Your task to perform on an android device: Clear the shopping cart on ebay. Add sony triple a to the cart on ebay Image 0: 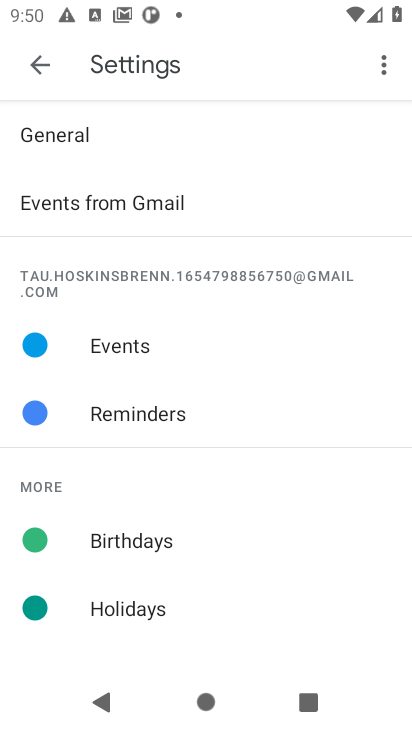
Step 0: press home button
Your task to perform on an android device: Clear the shopping cart on ebay. Add sony triple a to the cart on ebay Image 1: 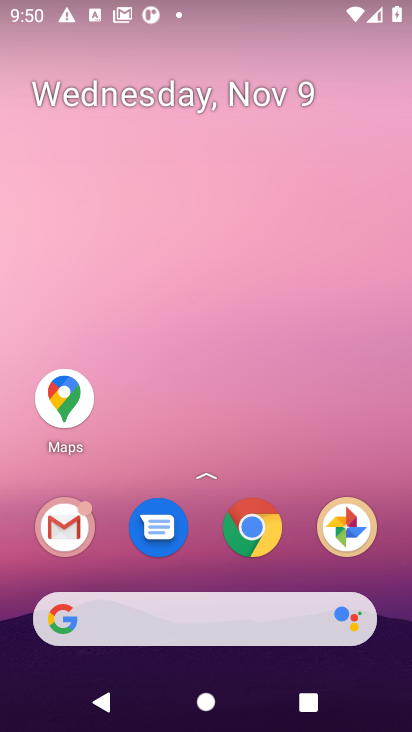
Step 1: click (253, 530)
Your task to perform on an android device: Clear the shopping cart on ebay. Add sony triple a to the cart on ebay Image 2: 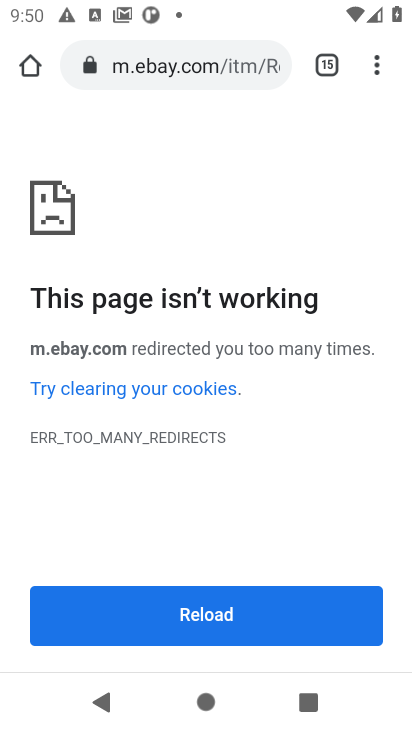
Step 2: click (154, 73)
Your task to perform on an android device: Clear the shopping cart on ebay. Add sony triple a to the cart on ebay Image 3: 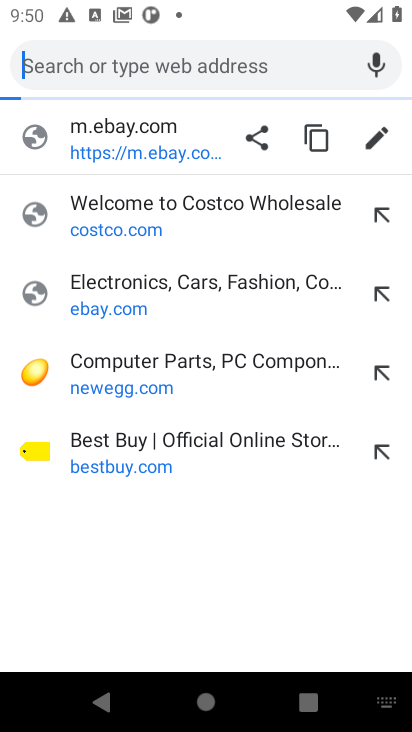
Step 3: click (111, 310)
Your task to perform on an android device: Clear the shopping cart on ebay. Add sony triple a to the cart on ebay Image 4: 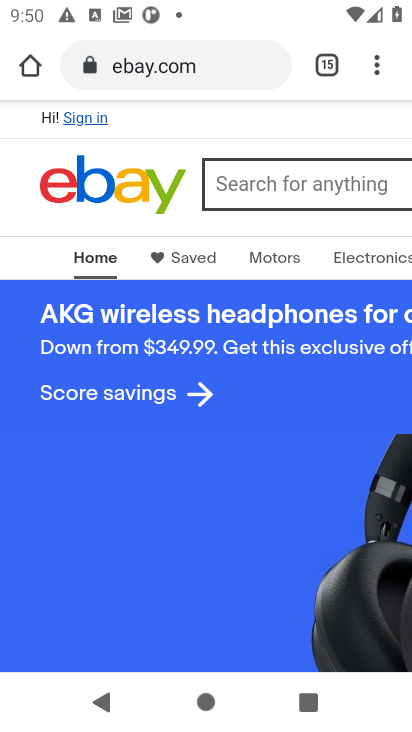
Step 4: drag from (340, 220) to (2, 192)
Your task to perform on an android device: Clear the shopping cart on ebay. Add sony triple a to the cart on ebay Image 5: 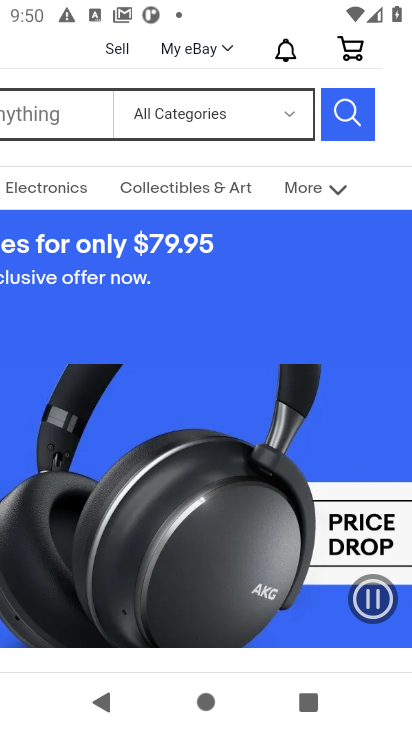
Step 5: click (349, 53)
Your task to perform on an android device: Clear the shopping cart on ebay. Add sony triple a to the cart on ebay Image 6: 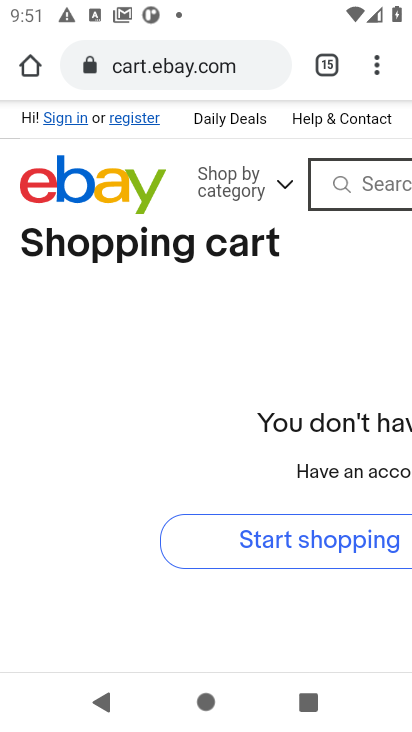
Step 6: click (362, 180)
Your task to perform on an android device: Clear the shopping cart on ebay. Add sony triple a to the cart on ebay Image 7: 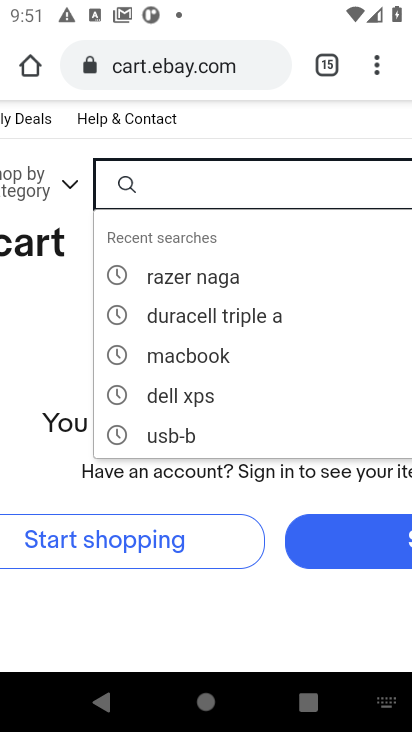
Step 7: type "sony triple a"
Your task to perform on an android device: Clear the shopping cart on ebay. Add sony triple a to the cart on ebay Image 8: 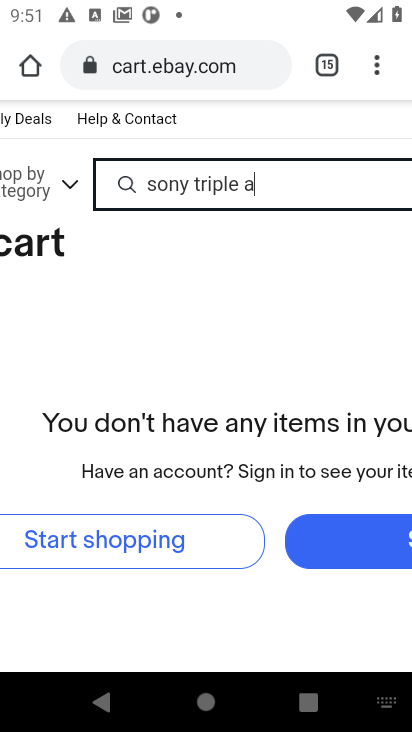
Step 8: drag from (293, 227) to (25, 239)
Your task to perform on an android device: Clear the shopping cart on ebay. Add sony triple a to the cart on ebay Image 9: 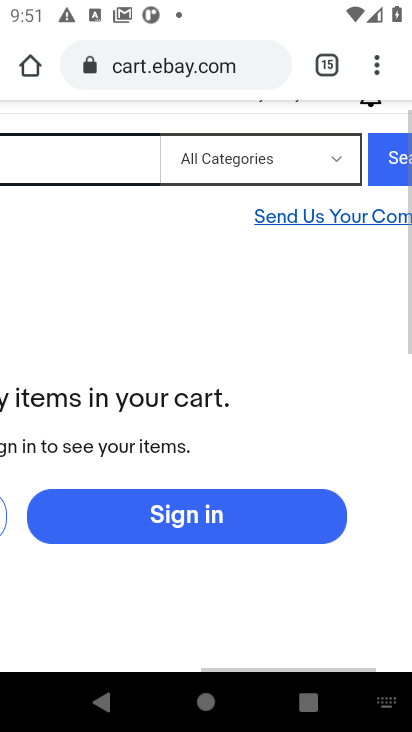
Step 9: click (383, 189)
Your task to perform on an android device: Clear the shopping cart on ebay. Add sony triple a to the cart on ebay Image 10: 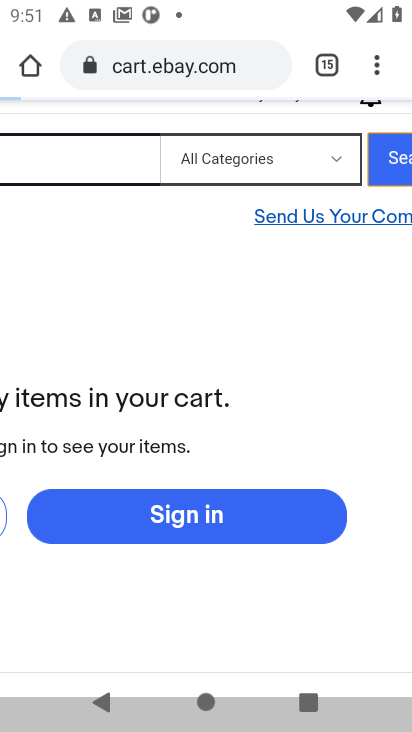
Step 10: click (384, 179)
Your task to perform on an android device: Clear the shopping cart on ebay. Add sony triple a to the cart on ebay Image 11: 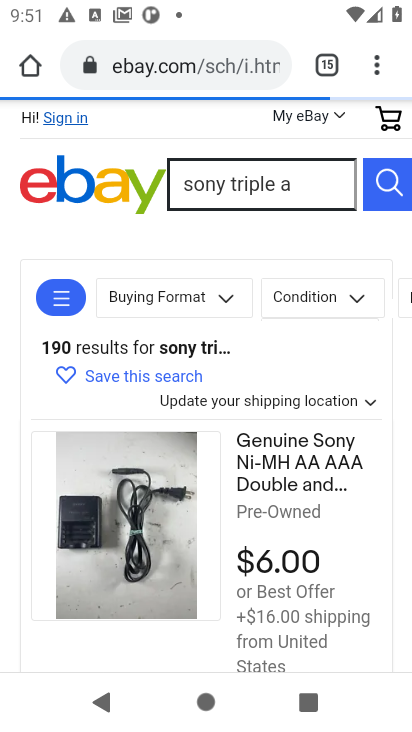
Step 11: drag from (135, 586) to (125, 410)
Your task to perform on an android device: Clear the shopping cart on ebay. Add sony triple a to the cart on ebay Image 12: 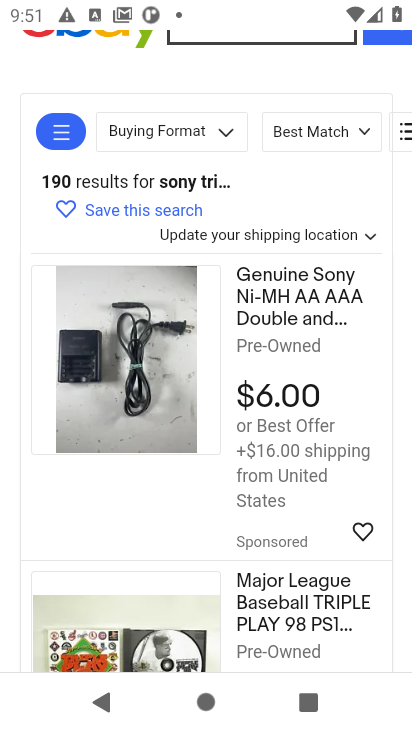
Step 12: click (125, 410)
Your task to perform on an android device: Clear the shopping cart on ebay. Add sony triple a to the cart on ebay Image 13: 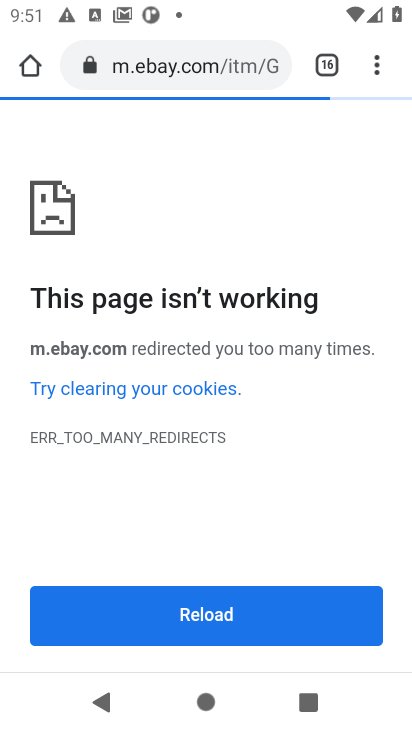
Step 13: task complete